Your task to perform on an android device: see tabs open on other devices in the chrome app Image 0: 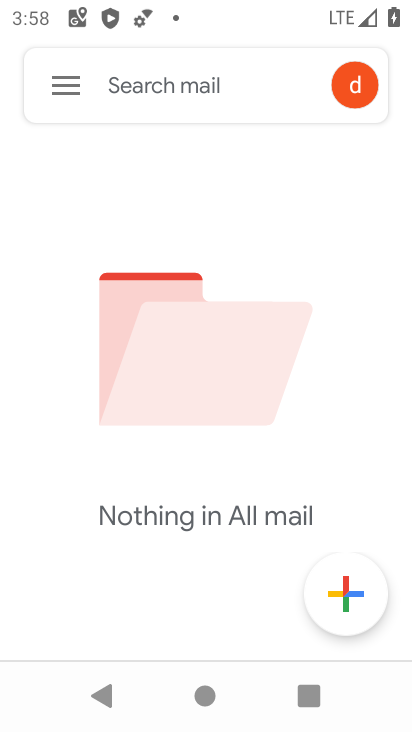
Step 0: press home button
Your task to perform on an android device: see tabs open on other devices in the chrome app Image 1: 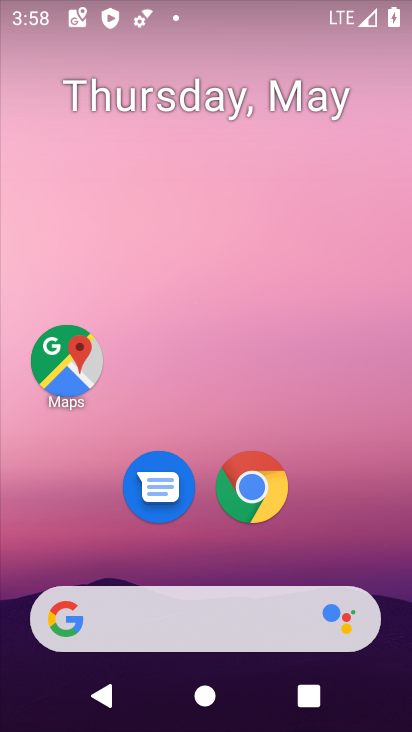
Step 1: drag from (209, 580) to (323, 239)
Your task to perform on an android device: see tabs open on other devices in the chrome app Image 2: 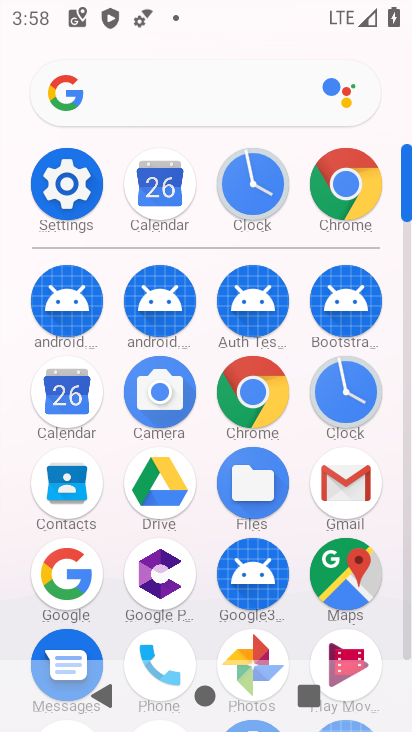
Step 2: click (355, 218)
Your task to perform on an android device: see tabs open on other devices in the chrome app Image 3: 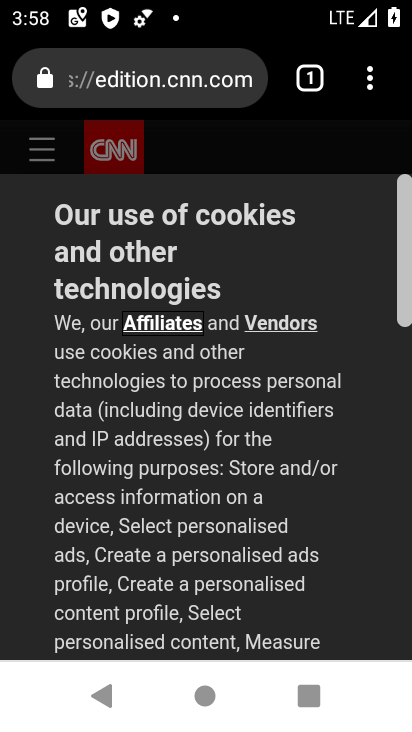
Step 3: click (384, 90)
Your task to perform on an android device: see tabs open on other devices in the chrome app Image 4: 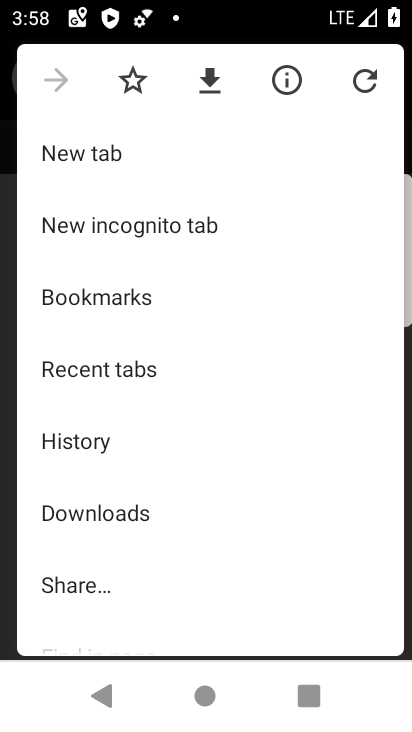
Step 4: task complete